Your task to perform on an android device: uninstall "DuckDuckGo Privacy Browser" Image 0: 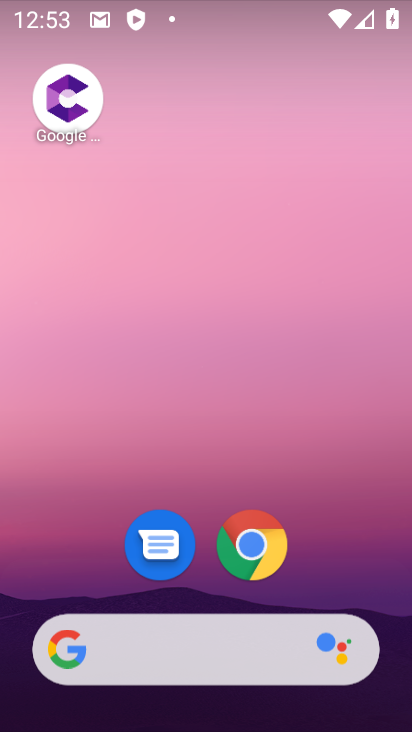
Step 0: drag from (204, 596) to (236, 57)
Your task to perform on an android device: uninstall "DuckDuckGo Privacy Browser" Image 1: 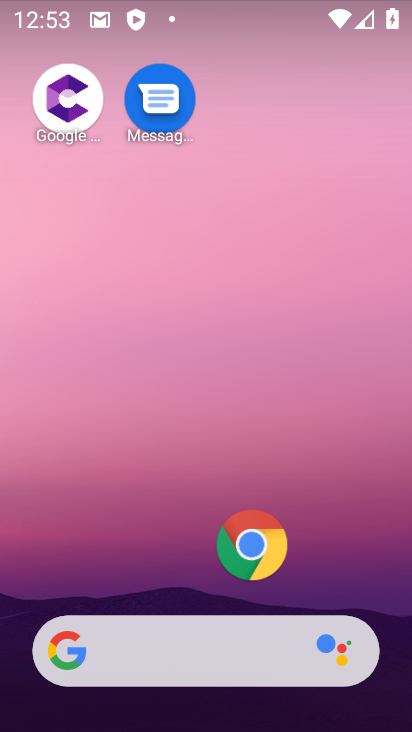
Step 1: drag from (211, 467) to (317, 97)
Your task to perform on an android device: uninstall "DuckDuckGo Privacy Browser" Image 2: 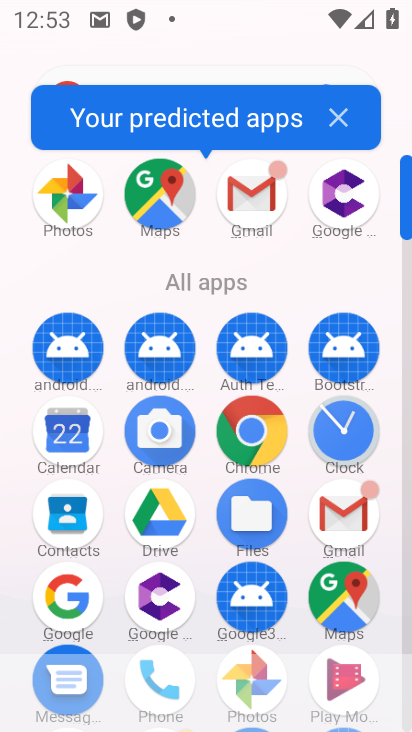
Step 2: drag from (212, 569) to (296, 17)
Your task to perform on an android device: uninstall "DuckDuckGo Privacy Browser" Image 3: 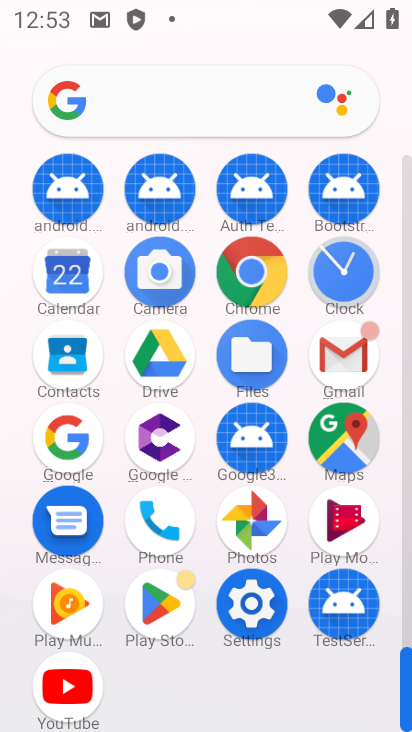
Step 3: click (163, 603)
Your task to perform on an android device: uninstall "DuckDuckGo Privacy Browser" Image 4: 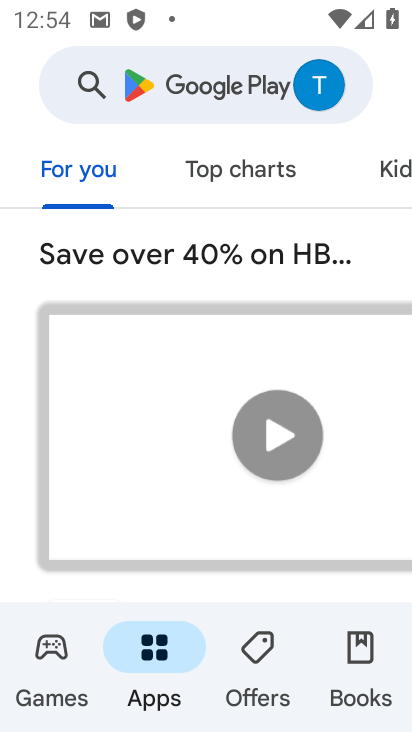
Step 4: click (168, 89)
Your task to perform on an android device: uninstall "DuckDuckGo Privacy Browser" Image 5: 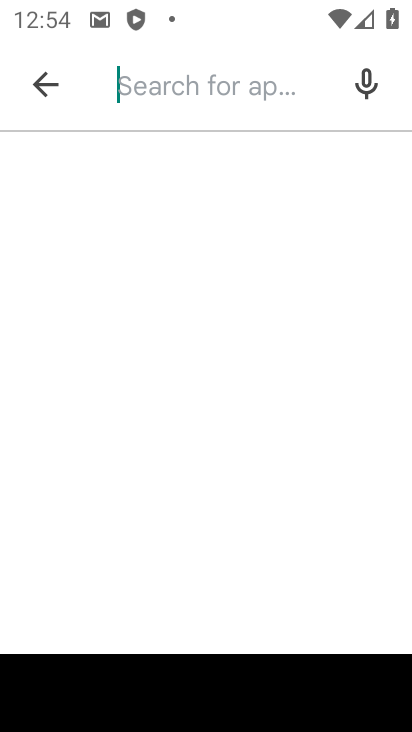
Step 5: type "duckduckgo"
Your task to perform on an android device: uninstall "DuckDuckGo Privacy Browser" Image 6: 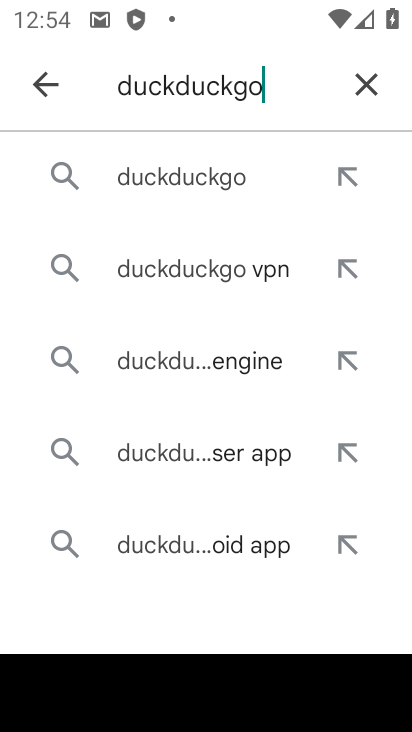
Step 6: click (216, 172)
Your task to perform on an android device: uninstall "DuckDuckGo Privacy Browser" Image 7: 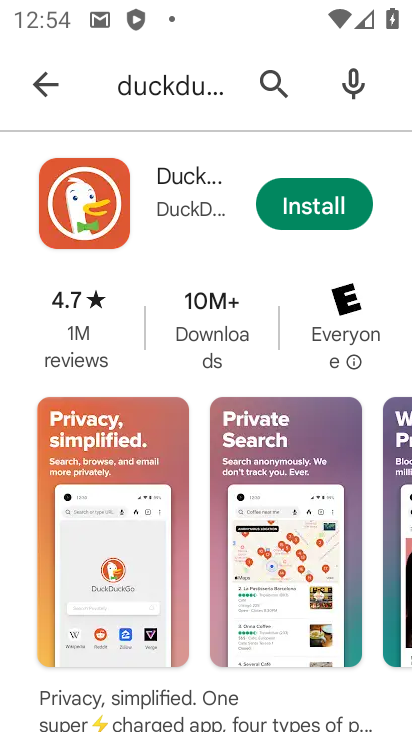
Step 7: click (184, 201)
Your task to perform on an android device: uninstall "DuckDuckGo Privacy Browser" Image 8: 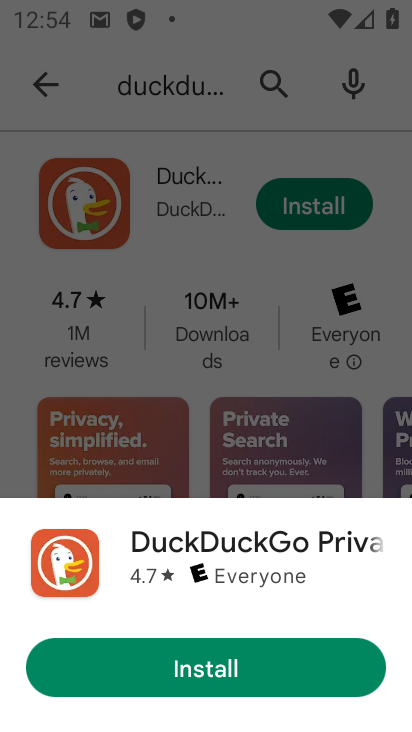
Step 8: task complete